Your task to perform on an android device: Open internet settings Image 0: 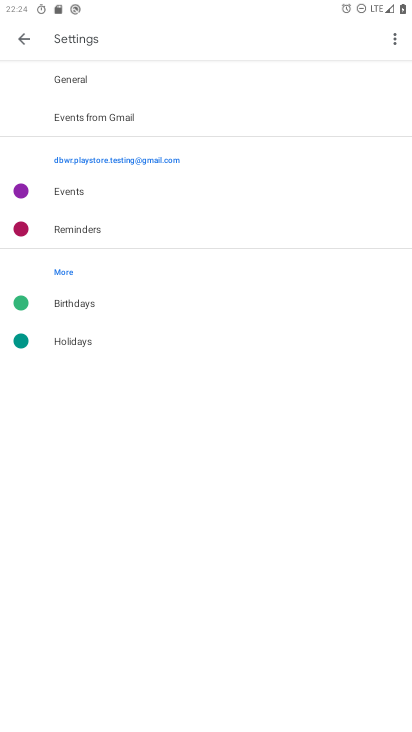
Step 0: drag from (209, 674) to (299, 279)
Your task to perform on an android device: Open internet settings Image 1: 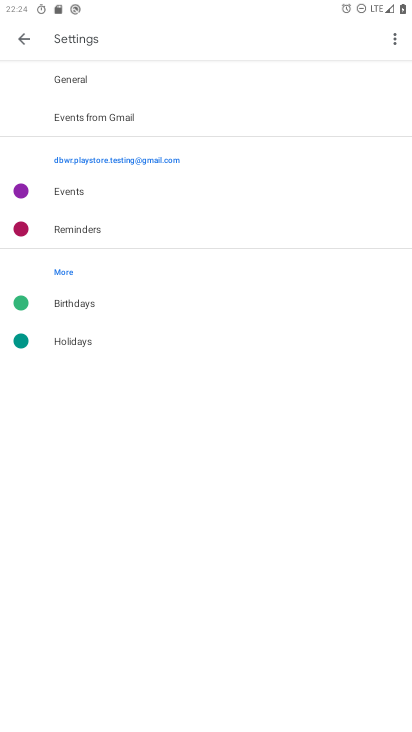
Step 1: press home button
Your task to perform on an android device: Open internet settings Image 2: 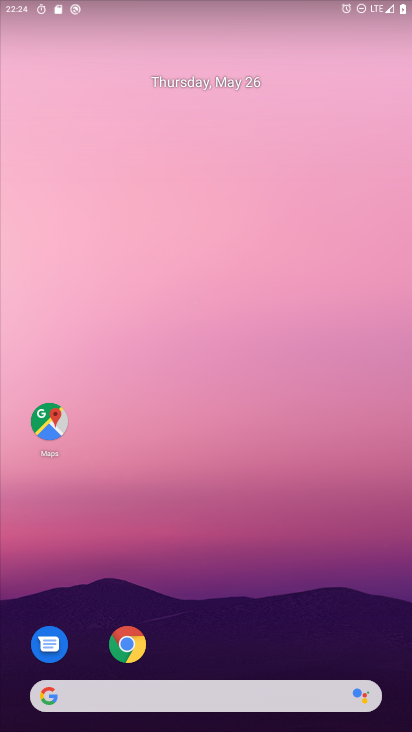
Step 2: drag from (203, 645) to (285, 121)
Your task to perform on an android device: Open internet settings Image 3: 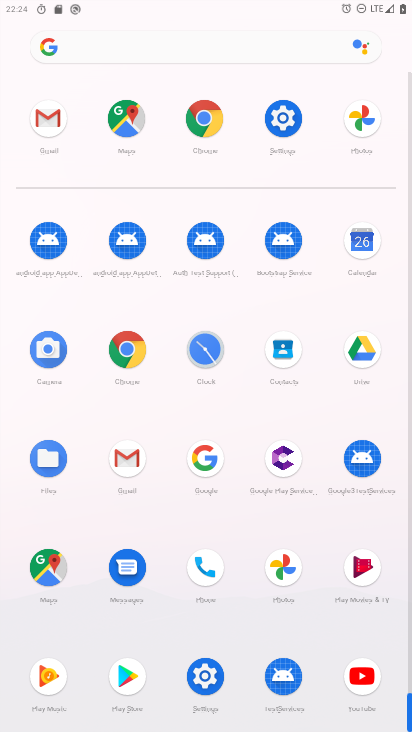
Step 3: click (276, 119)
Your task to perform on an android device: Open internet settings Image 4: 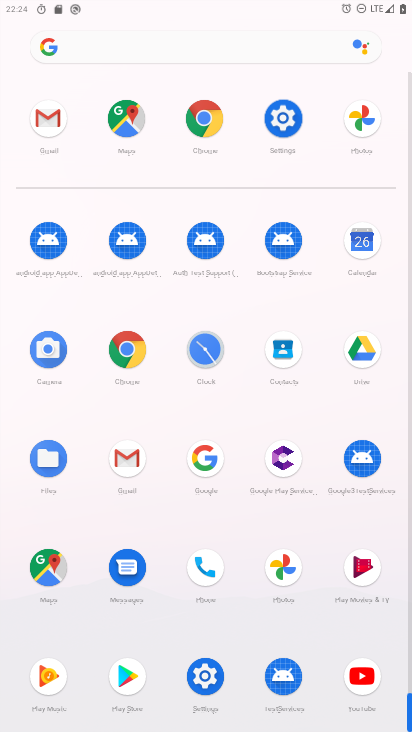
Step 4: click (276, 119)
Your task to perform on an android device: Open internet settings Image 5: 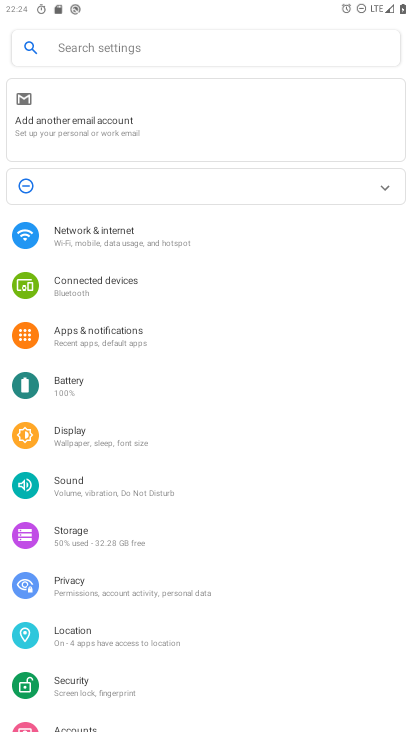
Step 5: click (89, 239)
Your task to perform on an android device: Open internet settings Image 6: 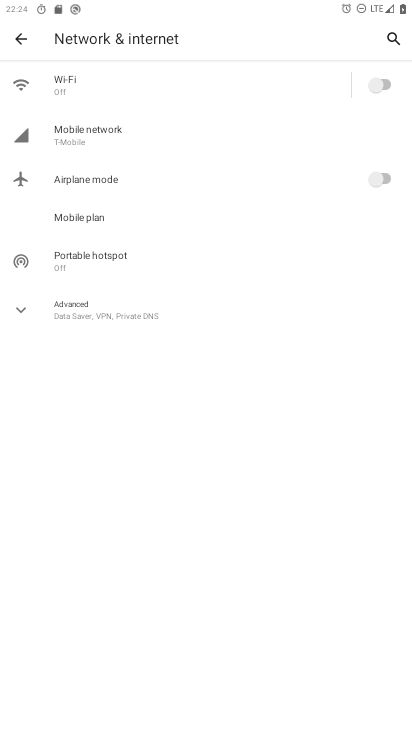
Step 6: click (145, 125)
Your task to perform on an android device: Open internet settings Image 7: 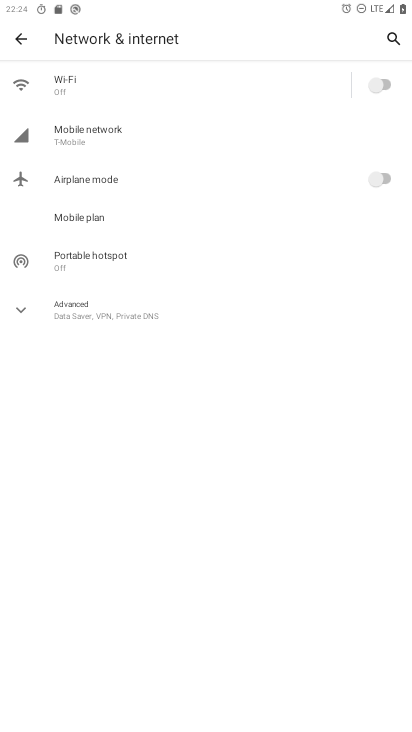
Step 7: task complete